Your task to perform on an android device: check out phone information Image 0: 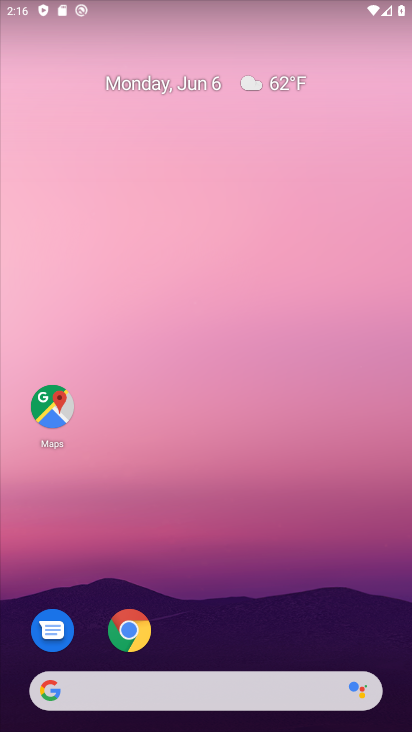
Step 0: click (300, 18)
Your task to perform on an android device: check out phone information Image 1: 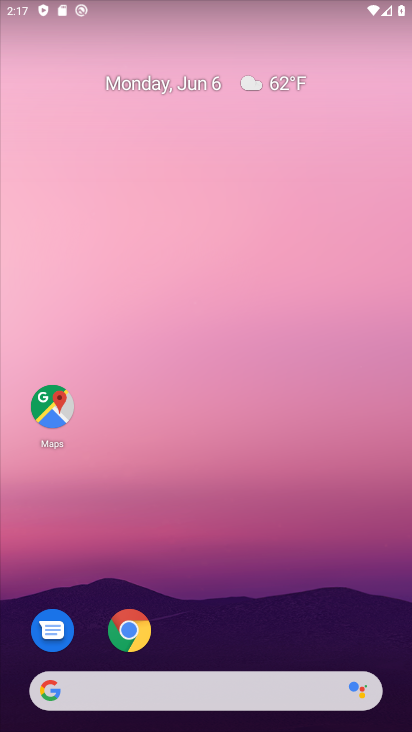
Step 1: drag from (247, 630) to (322, 31)
Your task to perform on an android device: check out phone information Image 2: 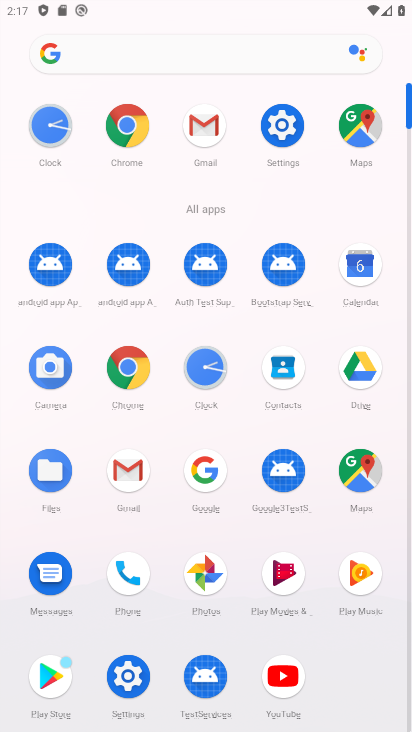
Step 2: click (122, 573)
Your task to perform on an android device: check out phone information Image 3: 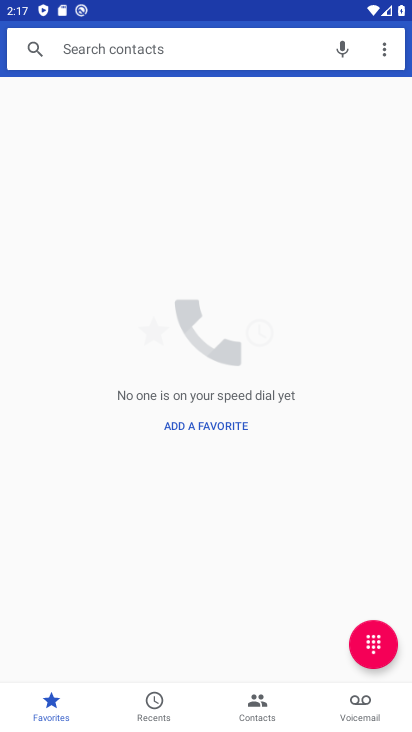
Step 3: press home button
Your task to perform on an android device: check out phone information Image 4: 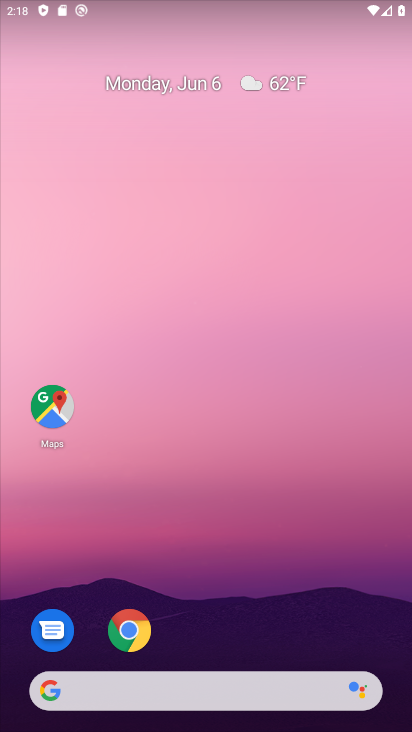
Step 4: drag from (173, 642) to (276, 184)
Your task to perform on an android device: check out phone information Image 5: 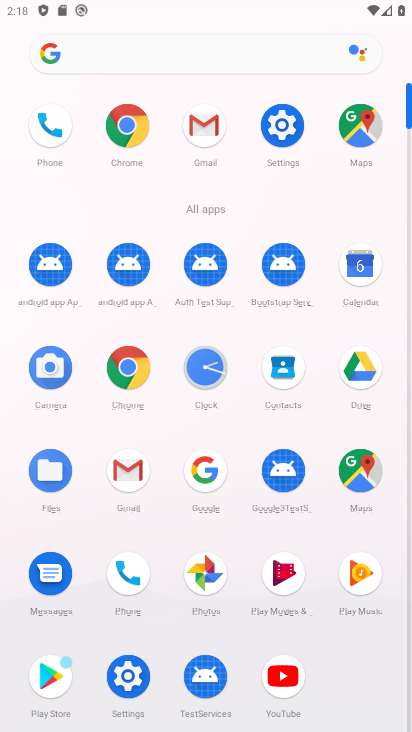
Step 5: click (132, 571)
Your task to perform on an android device: check out phone information Image 6: 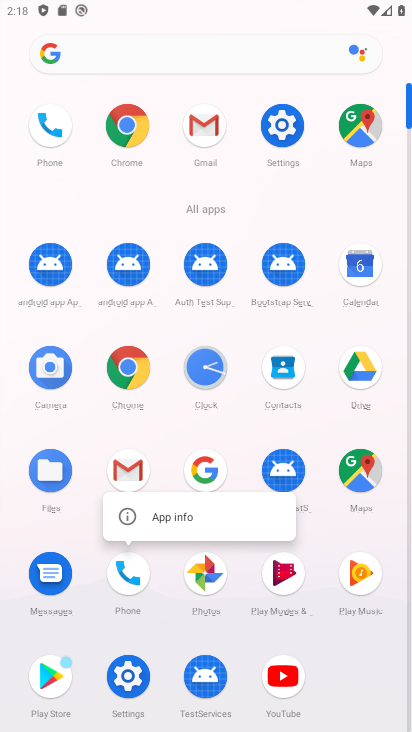
Step 6: click (147, 516)
Your task to perform on an android device: check out phone information Image 7: 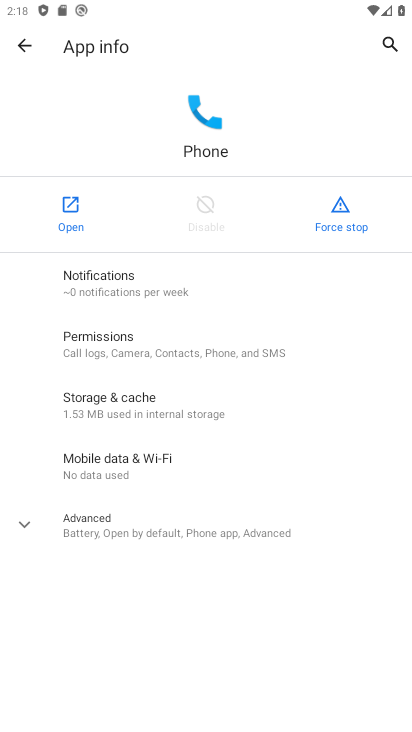
Step 7: task complete